Your task to perform on an android device: Open accessibility settings Image 0: 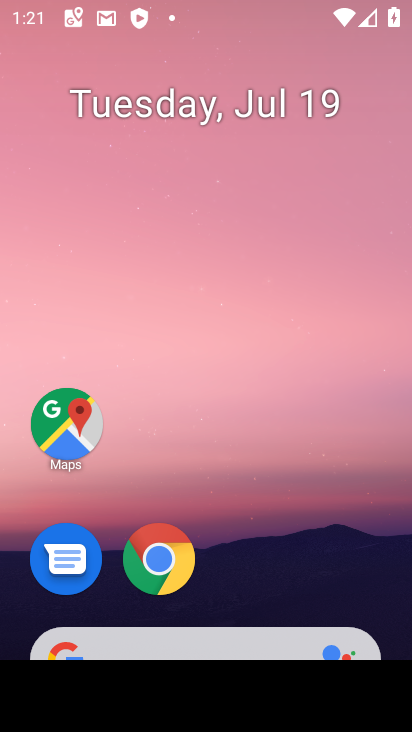
Step 0: drag from (147, 622) to (151, 235)
Your task to perform on an android device: Open accessibility settings Image 1: 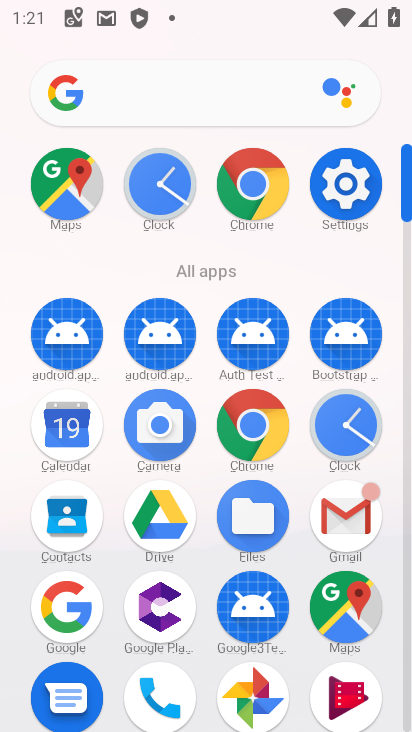
Step 1: click (351, 191)
Your task to perform on an android device: Open accessibility settings Image 2: 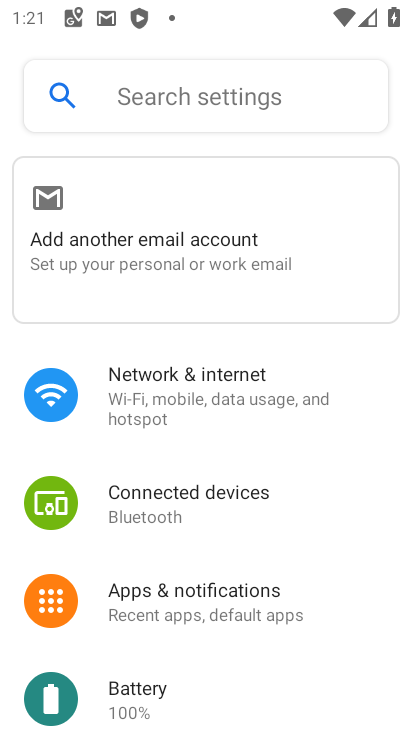
Step 2: drag from (151, 665) to (144, 308)
Your task to perform on an android device: Open accessibility settings Image 3: 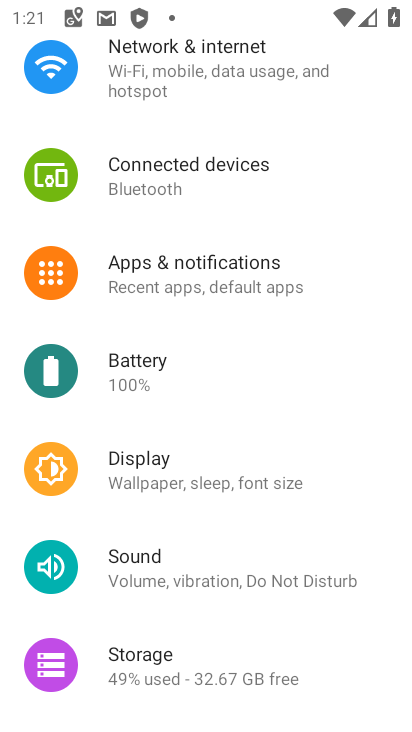
Step 3: drag from (132, 681) to (141, 298)
Your task to perform on an android device: Open accessibility settings Image 4: 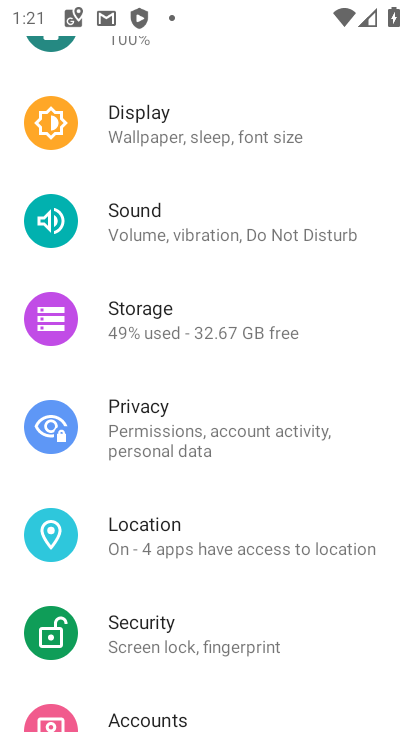
Step 4: drag from (168, 676) to (168, 263)
Your task to perform on an android device: Open accessibility settings Image 5: 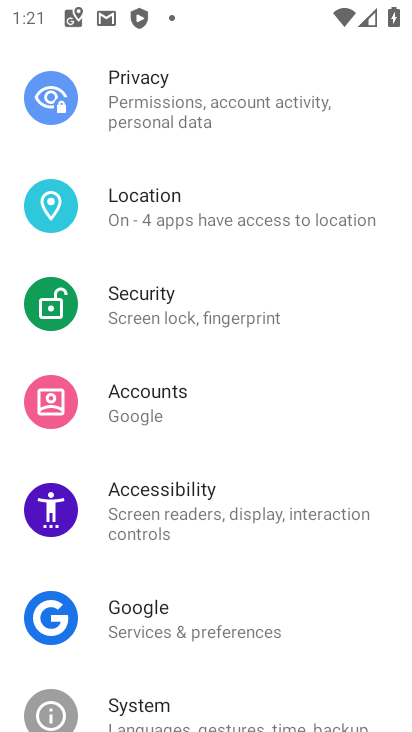
Step 5: click (225, 500)
Your task to perform on an android device: Open accessibility settings Image 6: 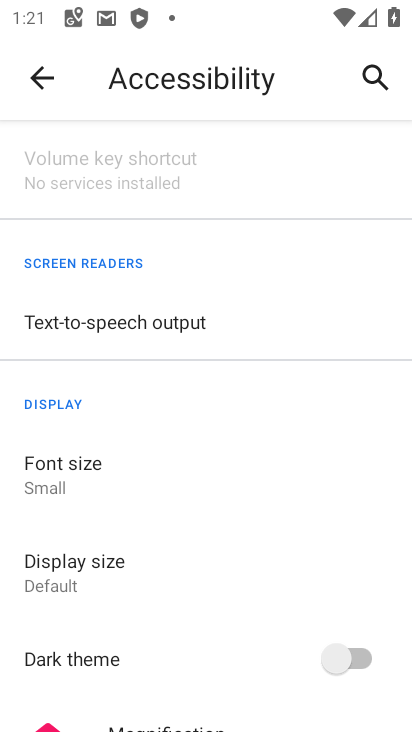
Step 6: task complete